Your task to perform on an android device: turn notification dots on Image 0: 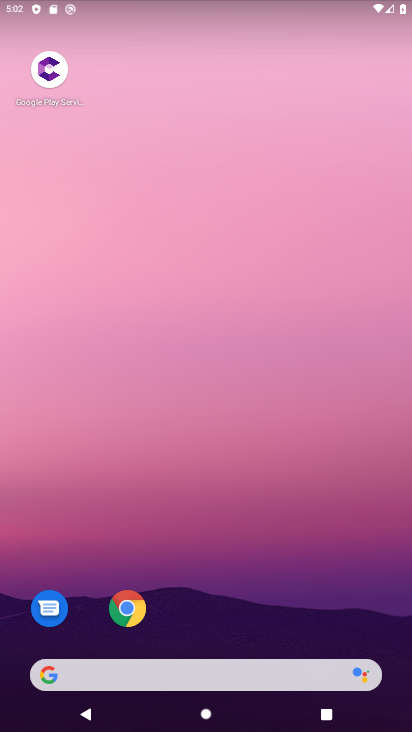
Step 0: drag from (351, 576) to (359, 9)
Your task to perform on an android device: turn notification dots on Image 1: 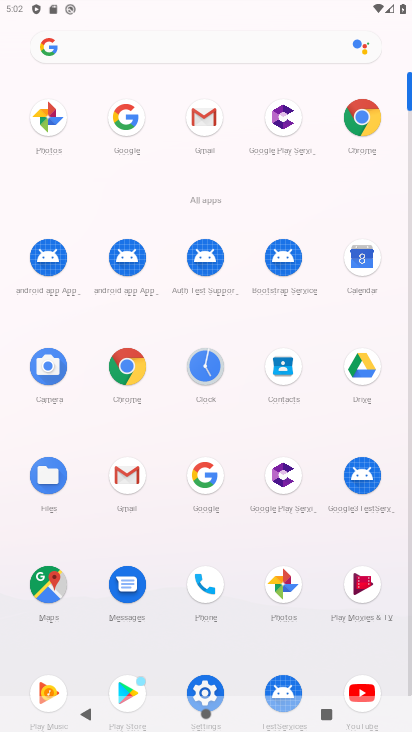
Step 1: click (213, 693)
Your task to perform on an android device: turn notification dots on Image 2: 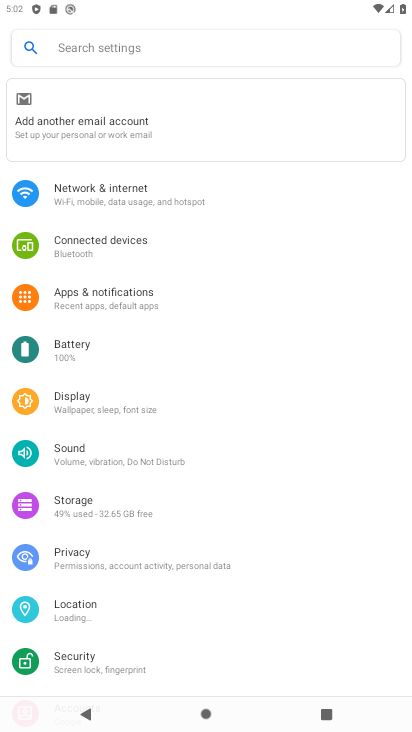
Step 2: click (137, 300)
Your task to perform on an android device: turn notification dots on Image 3: 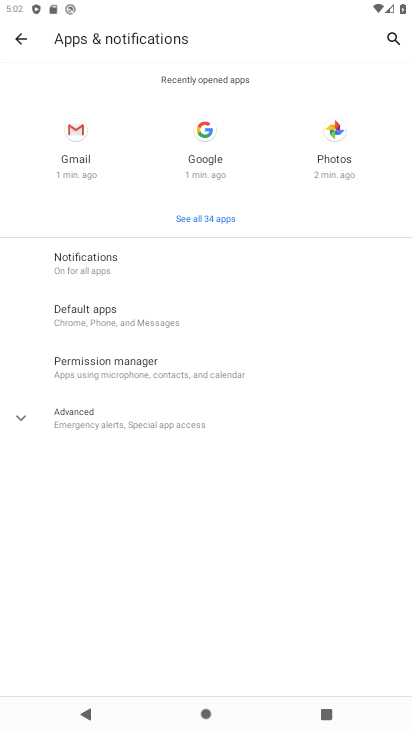
Step 3: click (122, 259)
Your task to perform on an android device: turn notification dots on Image 4: 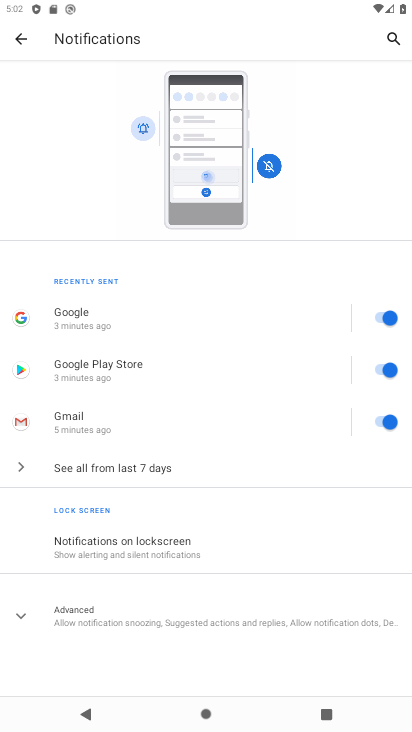
Step 4: click (127, 612)
Your task to perform on an android device: turn notification dots on Image 5: 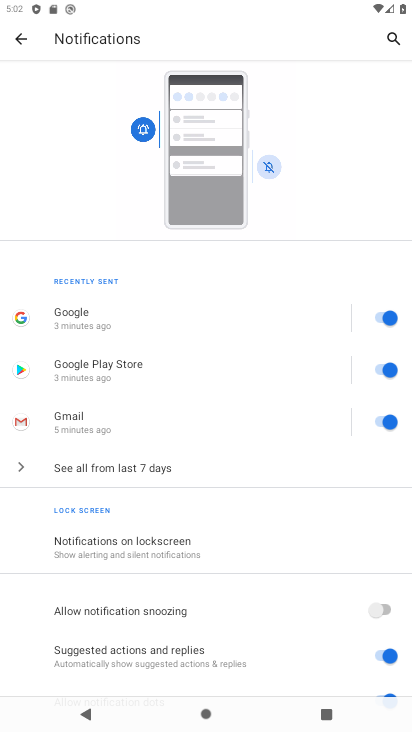
Step 5: task complete